Your task to perform on an android device: Open Chrome and go to settings Image 0: 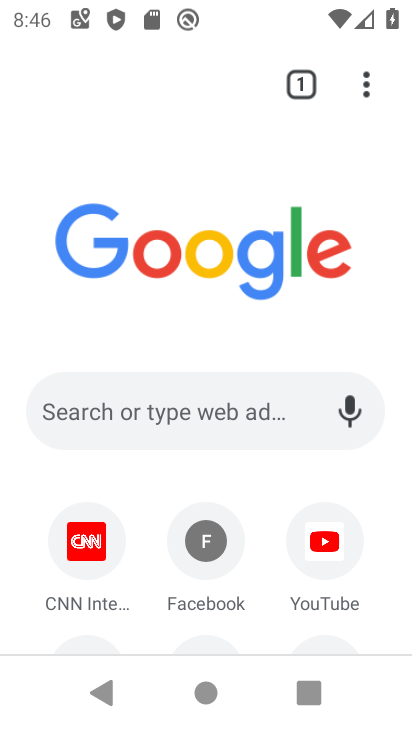
Step 0: click (369, 81)
Your task to perform on an android device: Open Chrome and go to settings Image 1: 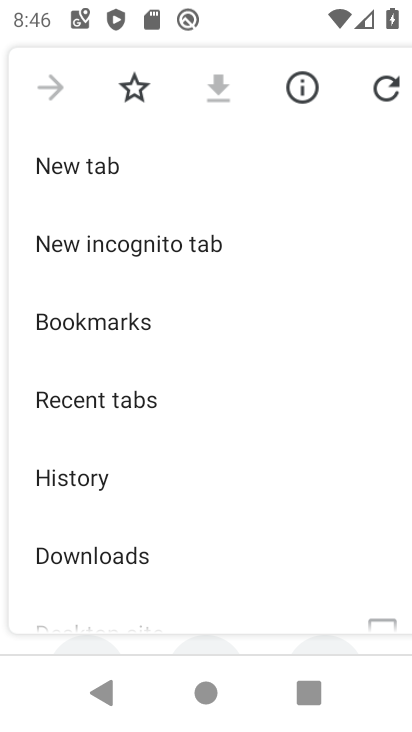
Step 1: drag from (171, 559) to (252, 65)
Your task to perform on an android device: Open Chrome and go to settings Image 2: 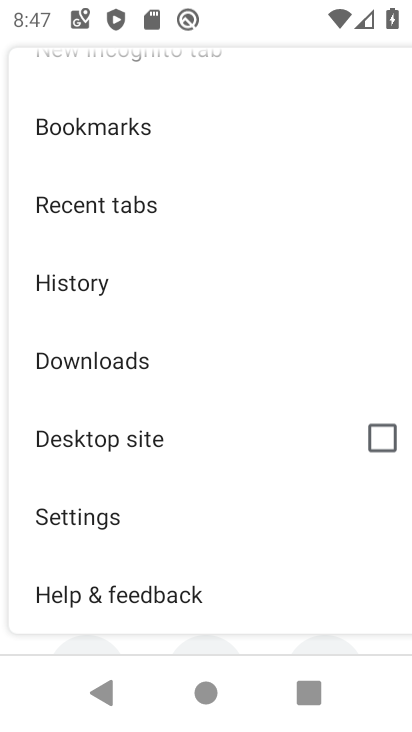
Step 2: click (98, 506)
Your task to perform on an android device: Open Chrome and go to settings Image 3: 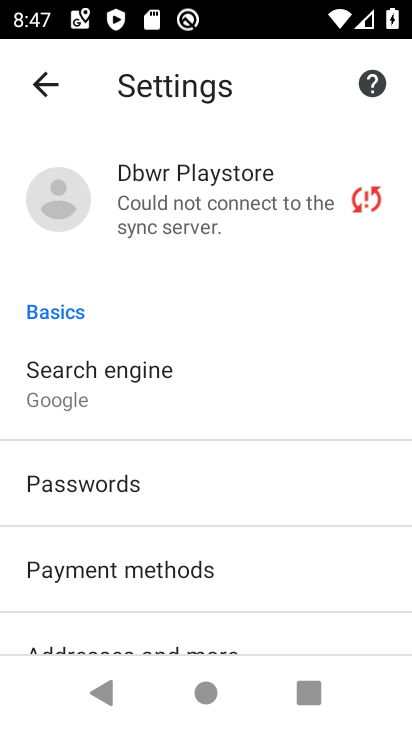
Step 3: task complete